Your task to perform on an android device: Go to accessibility settings Image 0: 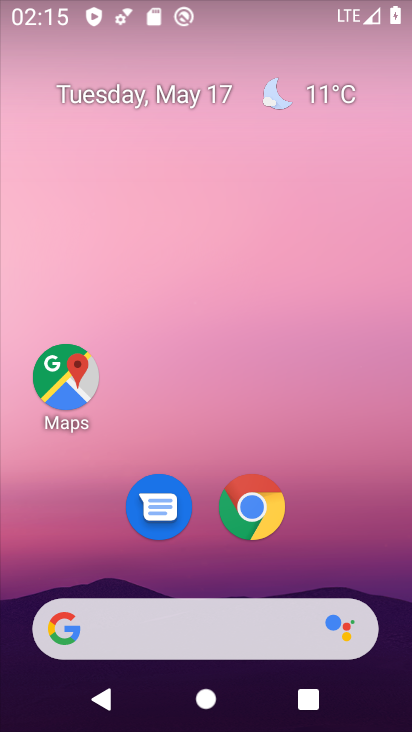
Step 0: drag from (185, 548) to (261, 61)
Your task to perform on an android device: Go to accessibility settings Image 1: 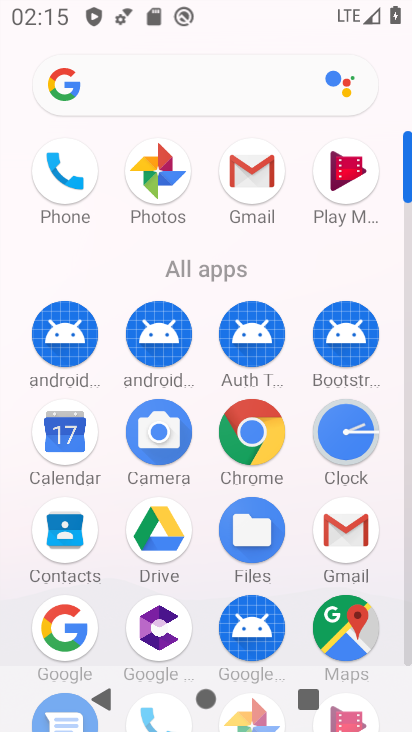
Step 1: drag from (188, 578) to (193, 278)
Your task to perform on an android device: Go to accessibility settings Image 2: 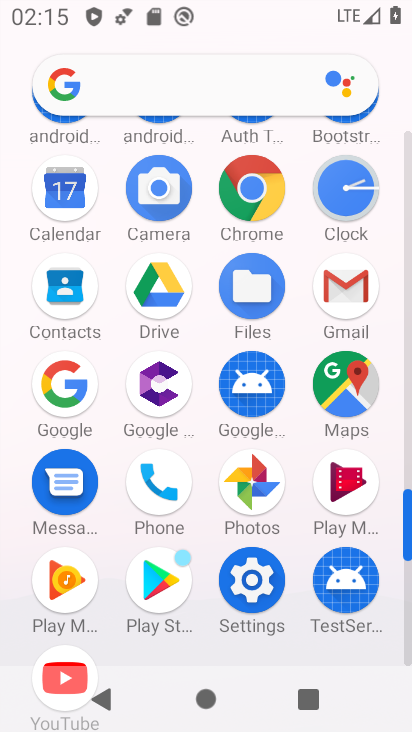
Step 2: click (245, 576)
Your task to perform on an android device: Go to accessibility settings Image 3: 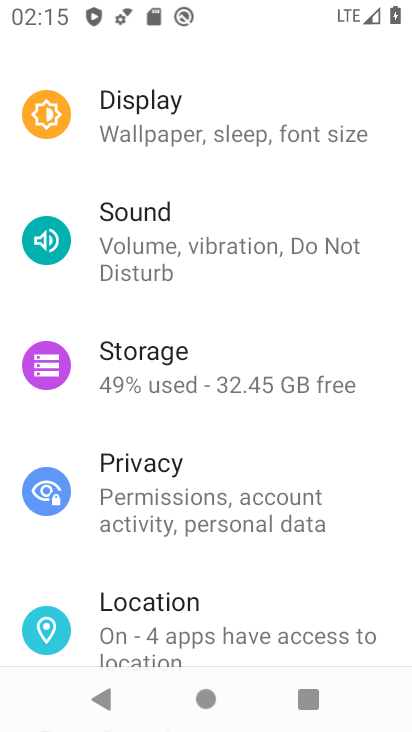
Step 3: drag from (172, 177) to (225, 558)
Your task to perform on an android device: Go to accessibility settings Image 4: 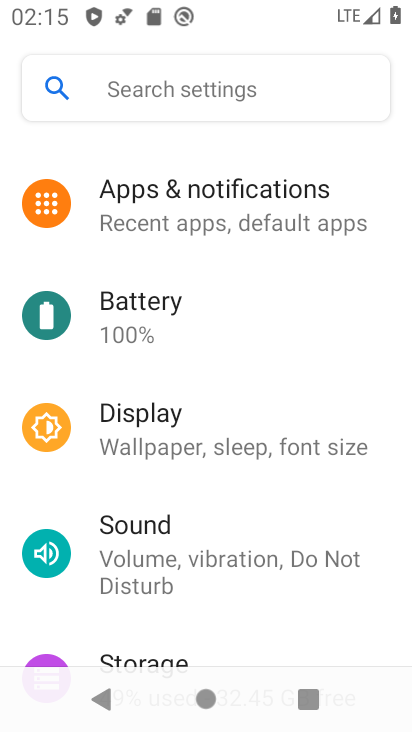
Step 4: drag from (127, 625) to (159, 261)
Your task to perform on an android device: Go to accessibility settings Image 5: 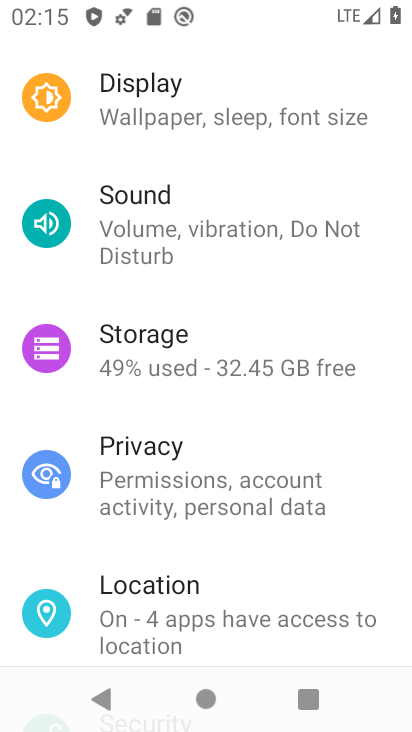
Step 5: drag from (208, 594) to (229, 312)
Your task to perform on an android device: Go to accessibility settings Image 6: 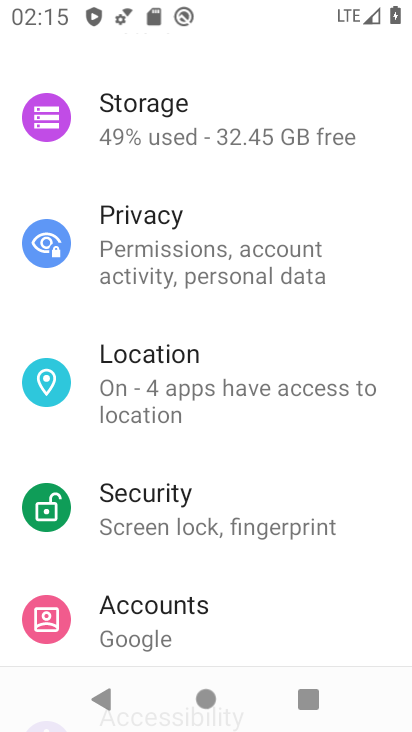
Step 6: drag from (177, 562) to (207, 269)
Your task to perform on an android device: Go to accessibility settings Image 7: 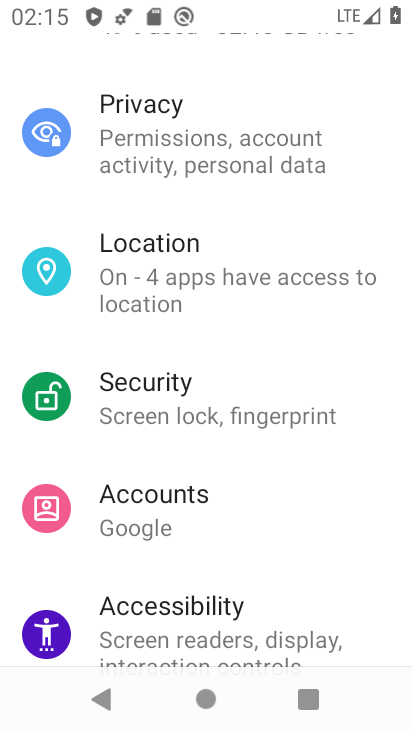
Step 7: click (143, 650)
Your task to perform on an android device: Go to accessibility settings Image 8: 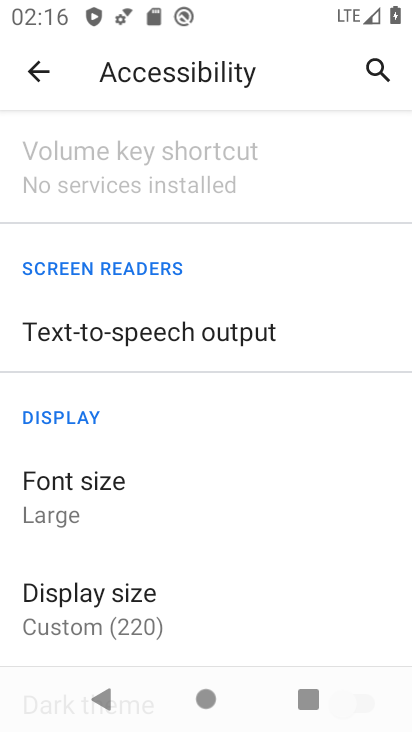
Step 8: task complete